Your task to perform on an android device: toggle data saver in the chrome app Image 0: 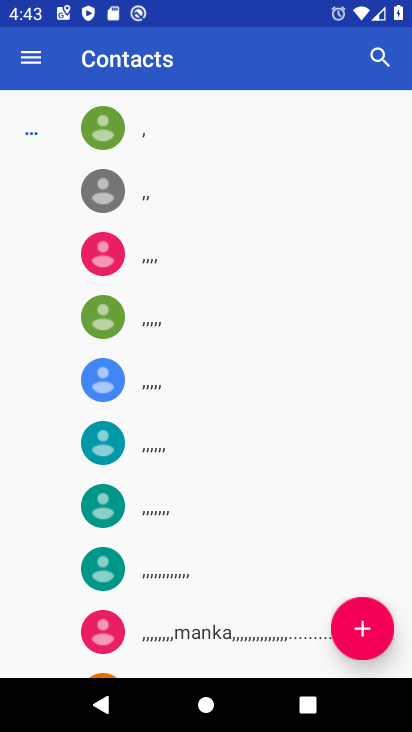
Step 0: press home button
Your task to perform on an android device: toggle data saver in the chrome app Image 1: 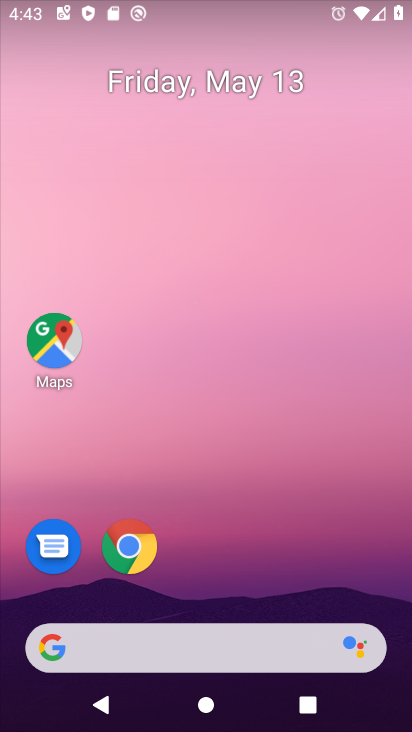
Step 1: click (135, 531)
Your task to perform on an android device: toggle data saver in the chrome app Image 2: 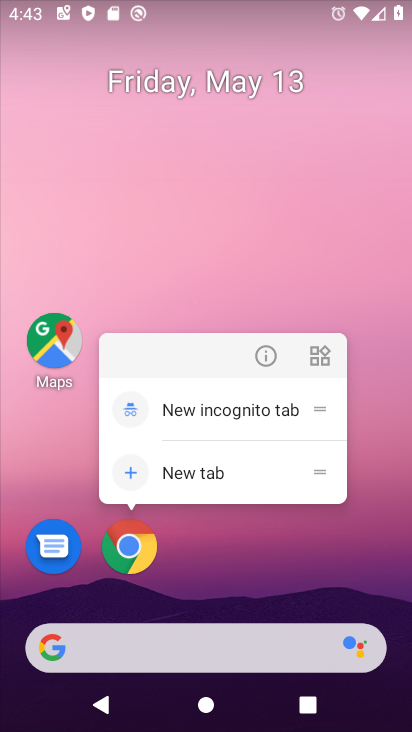
Step 2: click (131, 551)
Your task to perform on an android device: toggle data saver in the chrome app Image 3: 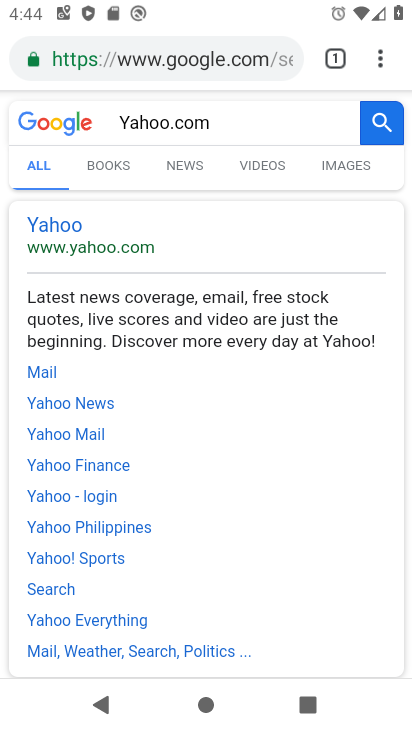
Step 3: click (380, 62)
Your task to perform on an android device: toggle data saver in the chrome app Image 4: 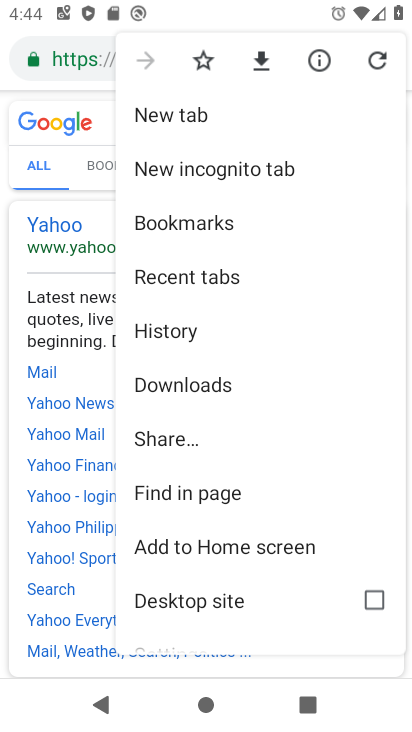
Step 4: drag from (212, 571) to (287, 188)
Your task to perform on an android device: toggle data saver in the chrome app Image 5: 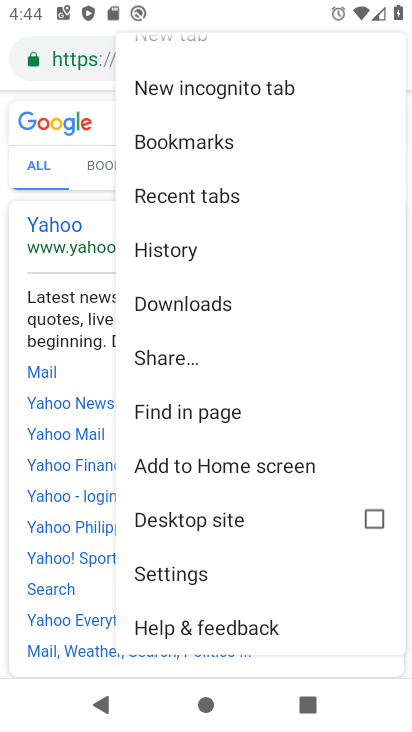
Step 5: click (193, 572)
Your task to perform on an android device: toggle data saver in the chrome app Image 6: 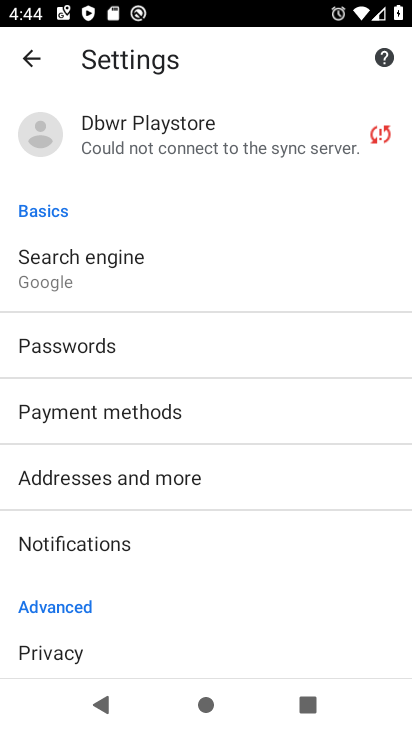
Step 6: drag from (134, 538) to (202, 181)
Your task to perform on an android device: toggle data saver in the chrome app Image 7: 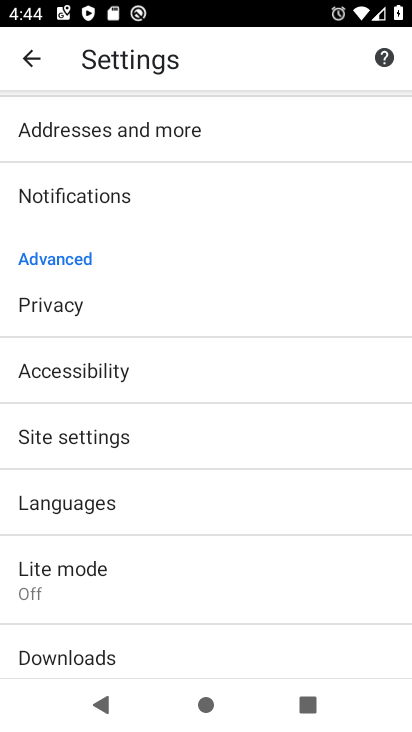
Step 7: click (81, 587)
Your task to perform on an android device: toggle data saver in the chrome app Image 8: 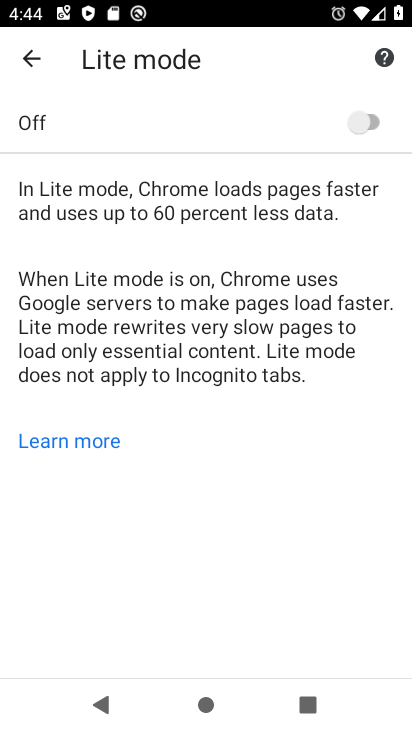
Step 8: click (382, 125)
Your task to perform on an android device: toggle data saver in the chrome app Image 9: 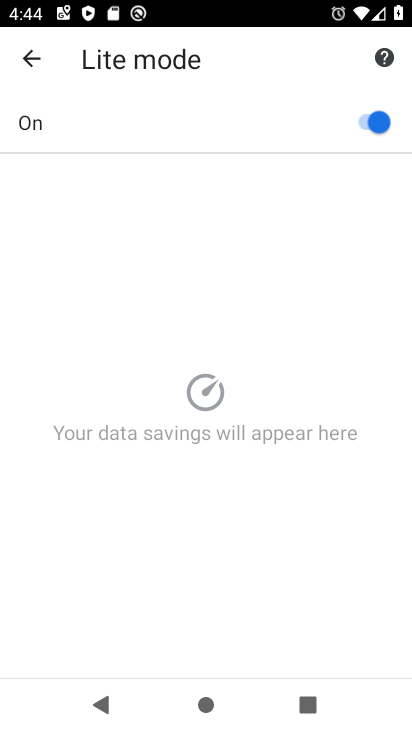
Step 9: task complete